Your task to perform on an android device: check storage Image 0: 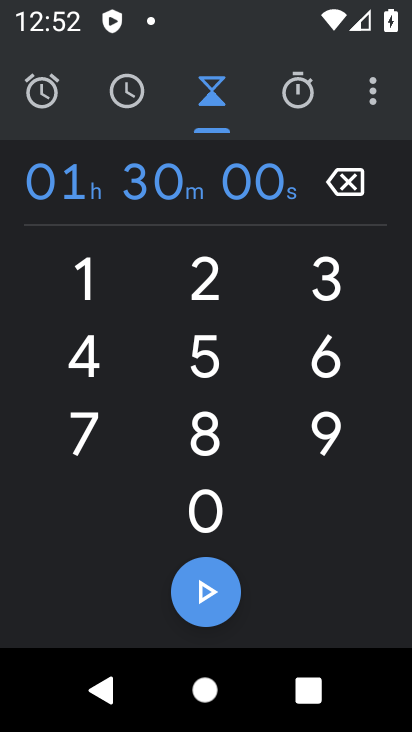
Step 0: press home button
Your task to perform on an android device: check storage Image 1: 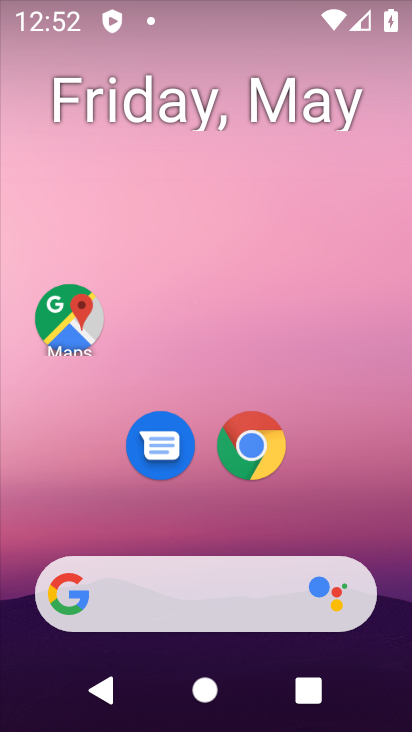
Step 1: drag from (396, 617) to (334, 0)
Your task to perform on an android device: check storage Image 2: 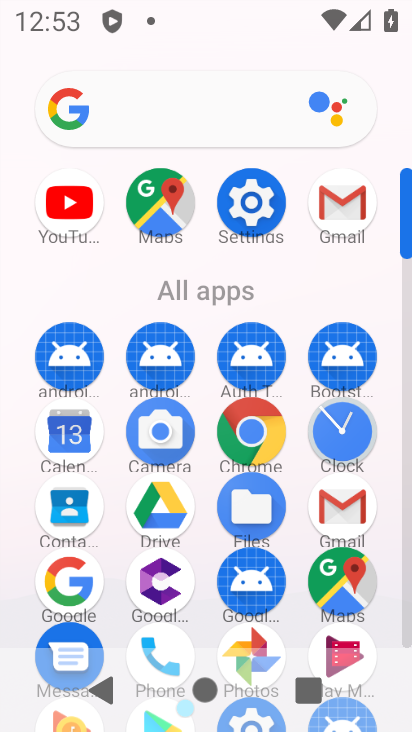
Step 2: click (411, 642)
Your task to perform on an android device: check storage Image 3: 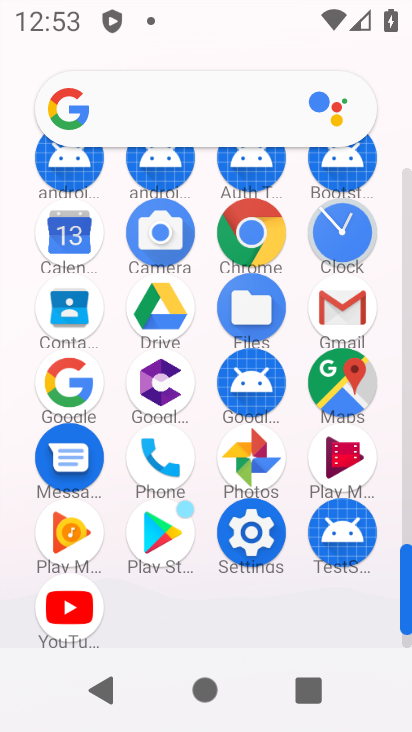
Step 3: click (253, 530)
Your task to perform on an android device: check storage Image 4: 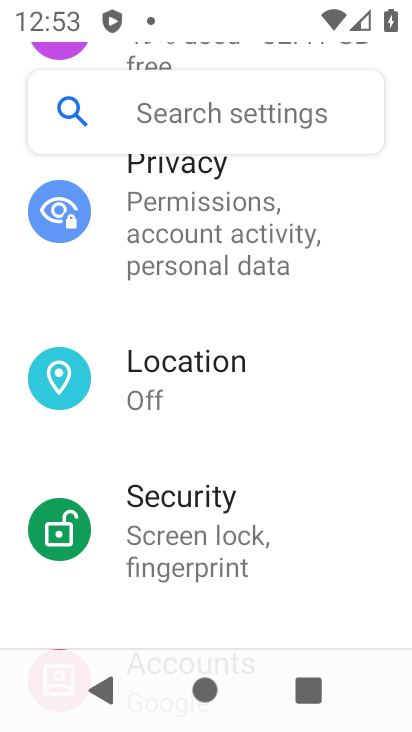
Step 4: drag from (260, 283) to (310, 544)
Your task to perform on an android device: check storage Image 5: 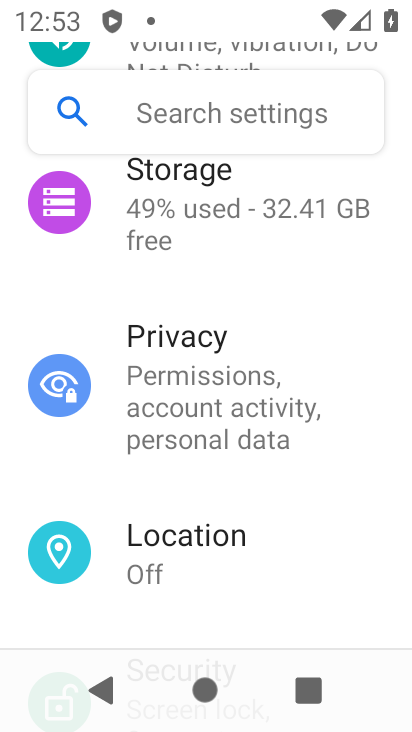
Step 5: click (173, 189)
Your task to perform on an android device: check storage Image 6: 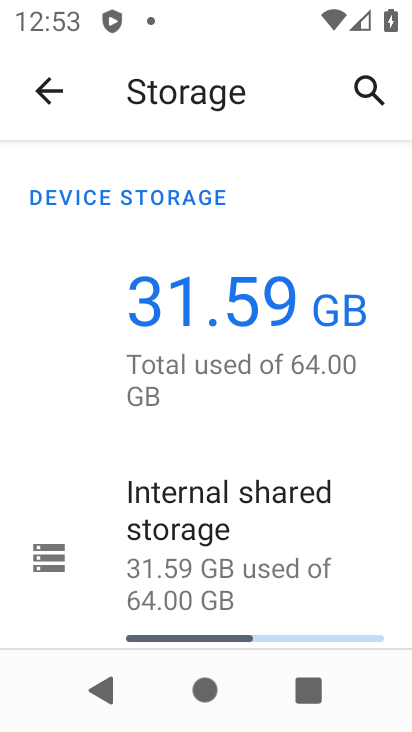
Step 6: task complete